Your task to perform on an android device: Go to display settings Image 0: 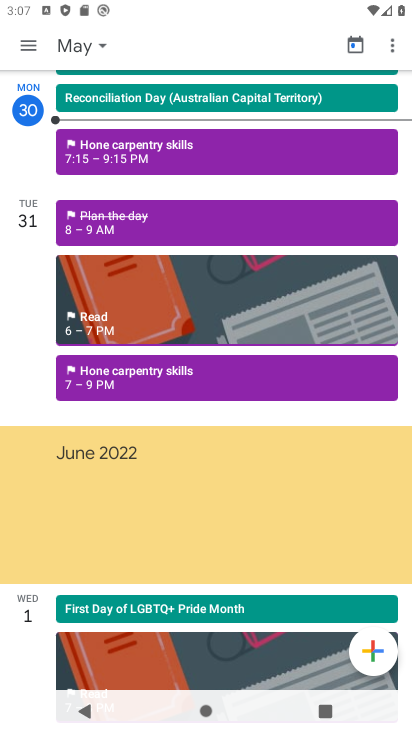
Step 0: press home button
Your task to perform on an android device: Go to display settings Image 1: 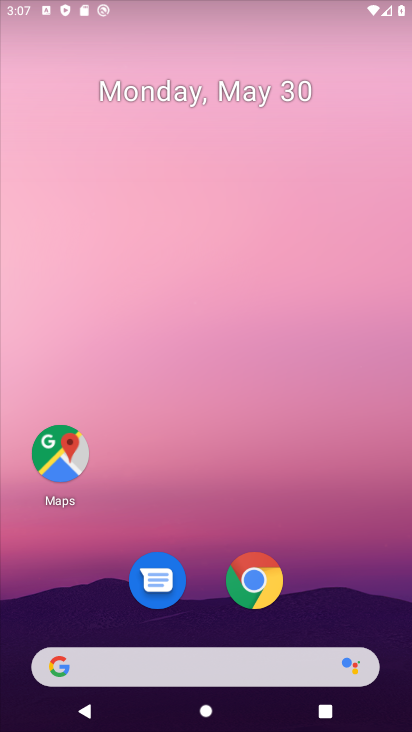
Step 1: drag from (337, 597) to (323, 51)
Your task to perform on an android device: Go to display settings Image 2: 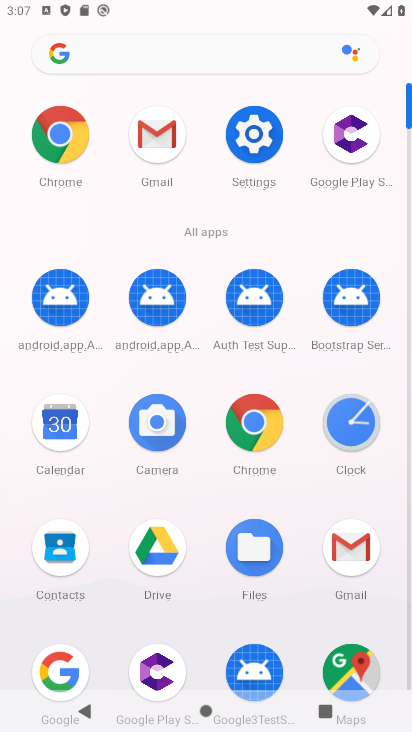
Step 2: click (252, 134)
Your task to perform on an android device: Go to display settings Image 3: 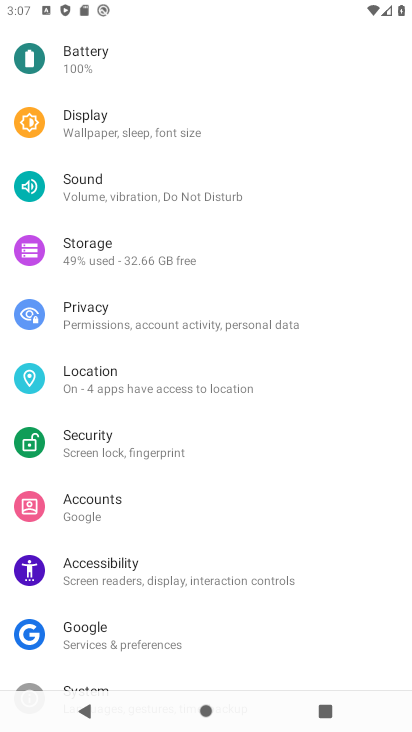
Step 3: click (95, 142)
Your task to perform on an android device: Go to display settings Image 4: 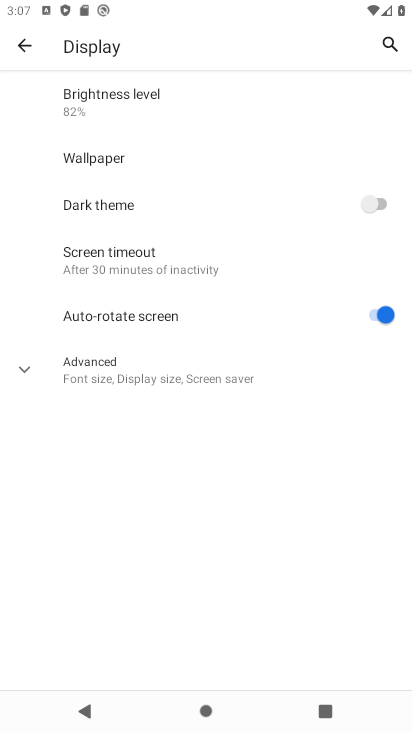
Step 4: task complete